Your task to perform on an android device: Clear the shopping cart on target.com. Add "razer naga" to the cart on target.com, then select checkout. Image 0: 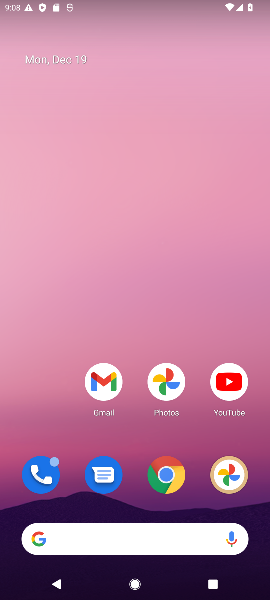
Step 0: task complete